Your task to perform on an android device: star an email in the gmail app Image 0: 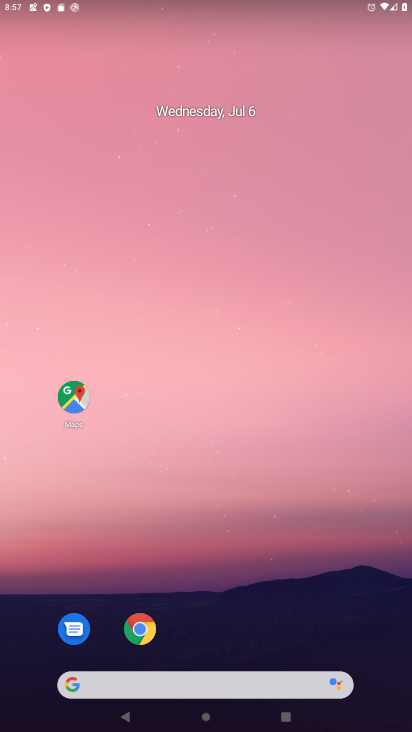
Step 0: drag from (407, 188) to (262, 50)
Your task to perform on an android device: star an email in the gmail app Image 1: 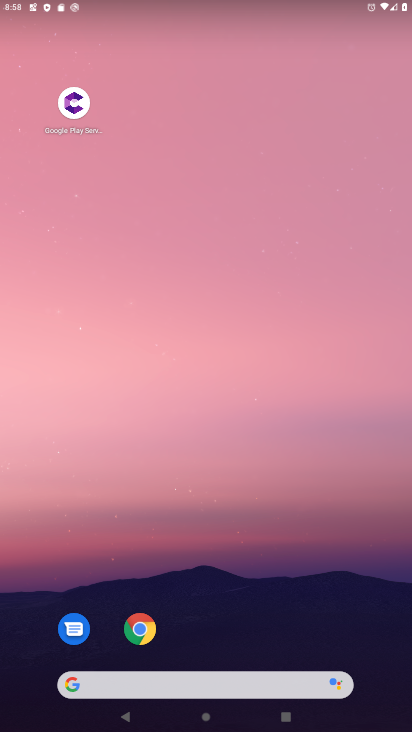
Step 1: press home button
Your task to perform on an android device: star an email in the gmail app Image 2: 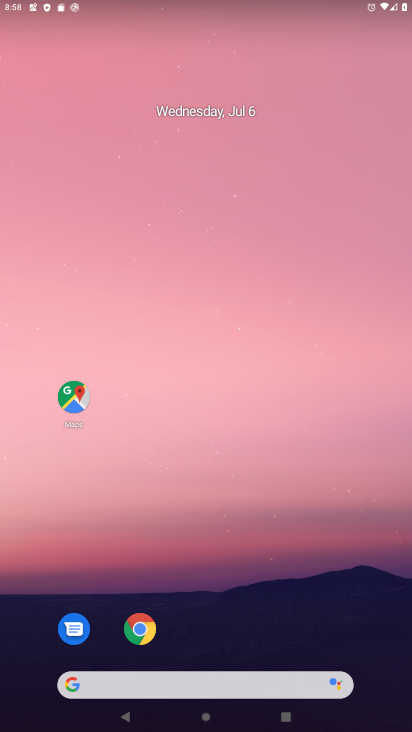
Step 2: drag from (39, 561) to (225, 93)
Your task to perform on an android device: star an email in the gmail app Image 3: 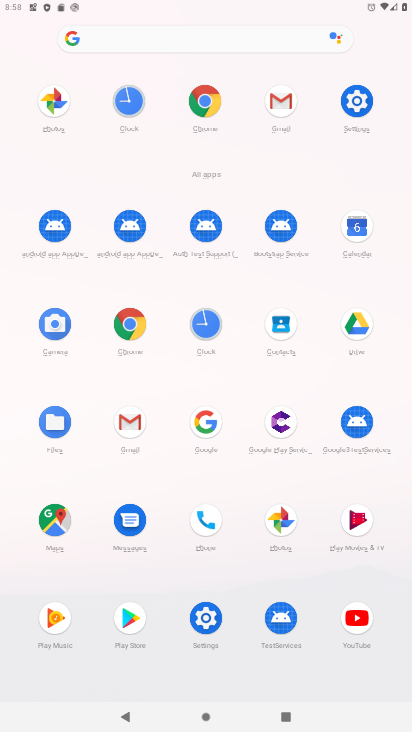
Step 3: click (294, 109)
Your task to perform on an android device: star an email in the gmail app Image 4: 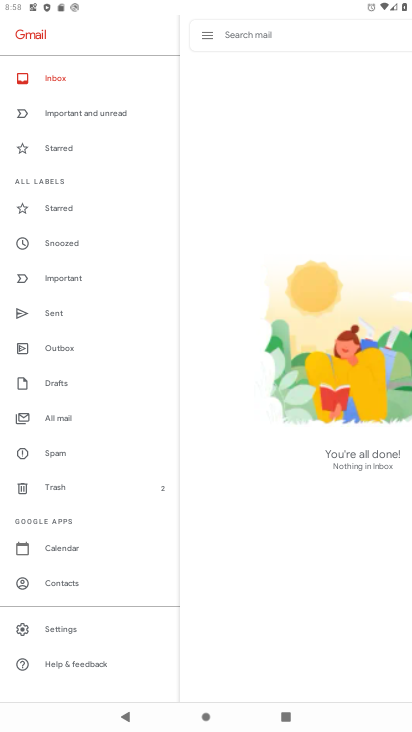
Step 4: click (59, 75)
Your task to perform on an android device: star an email in the gmail app Image 5: 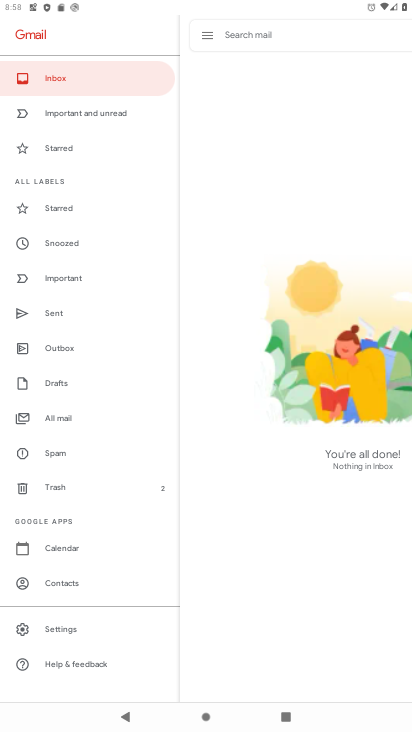
Step 5: task complete